Your task to perform on an android device: show emergency info Image 0: 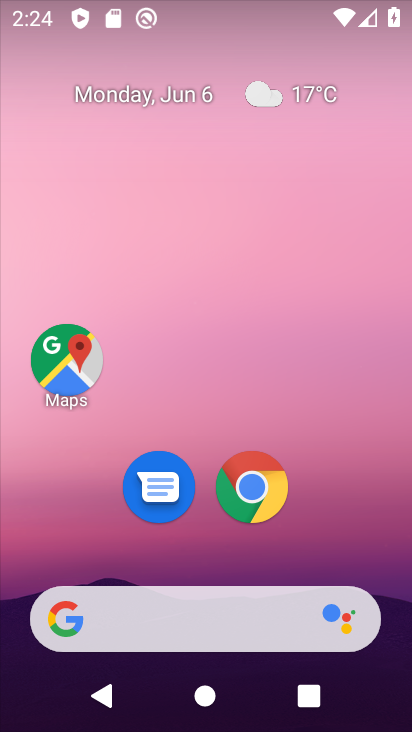
Step 0: drag from (150, 594) to (260, 83)
Your task to perform on an android device: show emergency info Image 1: 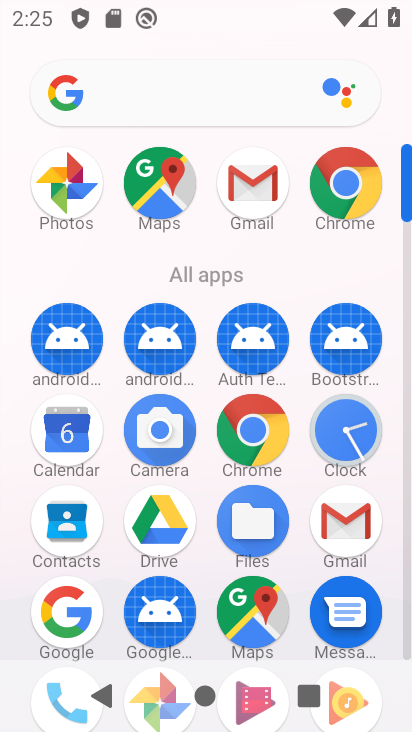
Step 1: drag from (193, 617) to (361, 231)
Your task to perform on an android device: show emergency info Image 2: 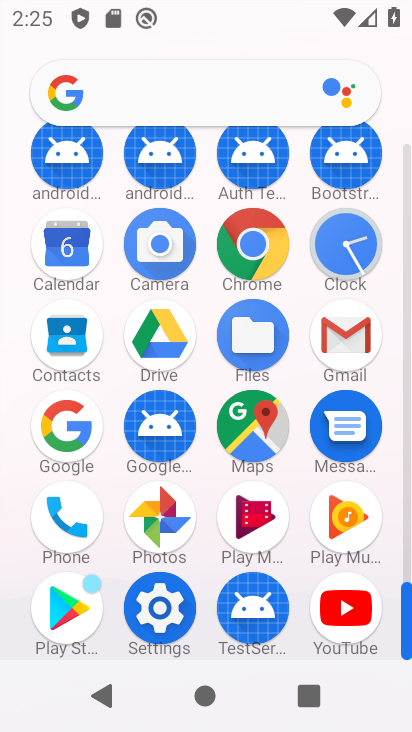
Step 2: click (169, 630)
Your task to perform on an android device: show emergency info Image 3: 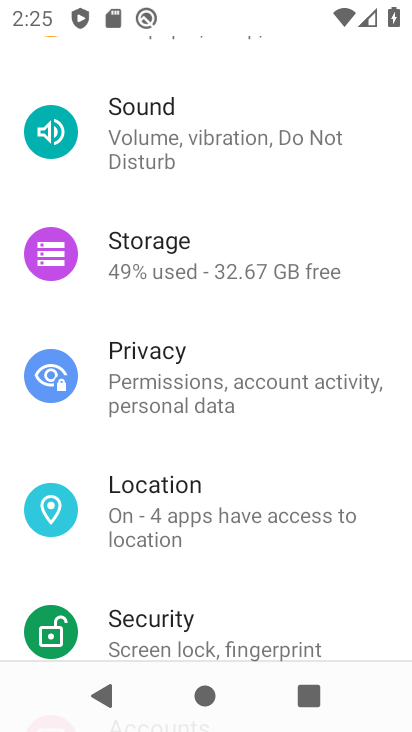
Step 3: drag from (170, 628) to (406, 127)
Your task to perform on an android device: show emergency info Image 4: 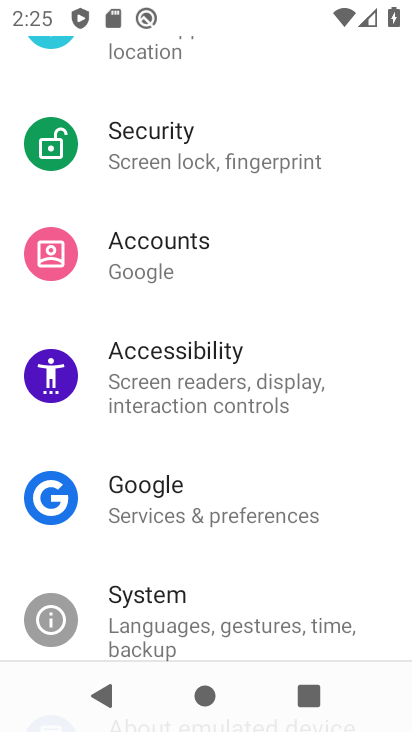
Step 4: drag from (107, 588) to (352, 156)
Your task to perform on an android device: show emergency info Image 5: 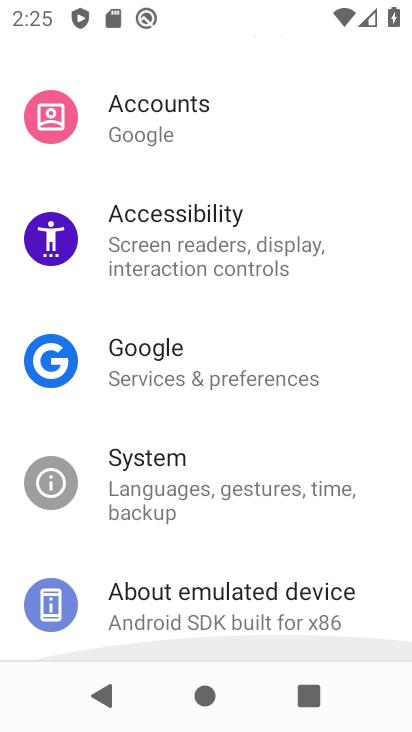
Step 5: click (310, 616)
Your task to perform on an android device: show emergency info Image 6: 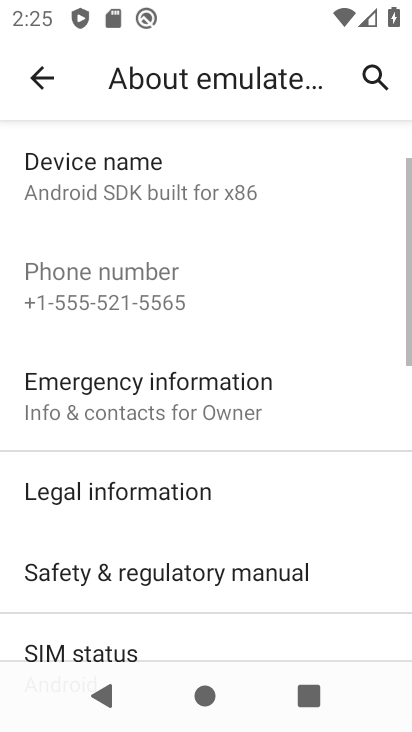
Step 6: click (284, 420)
Your task to perform on an android device: show emergency info Image 7: 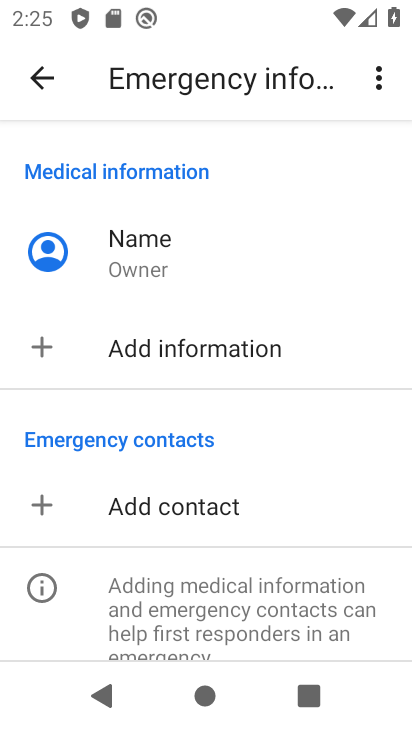
Step 7: task complete